Your task to perform on an android device: see tabs open on other devices in the chrome app Image 0: 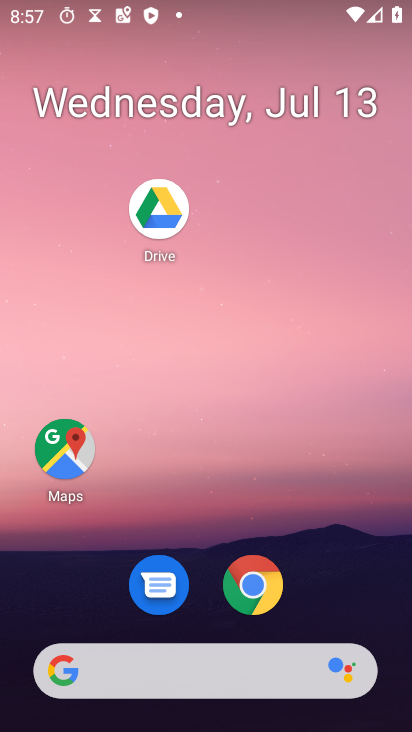
Step 0: press home button
Your task to perform on an android device: see tabs open on other devices in the chrome app Image 1: 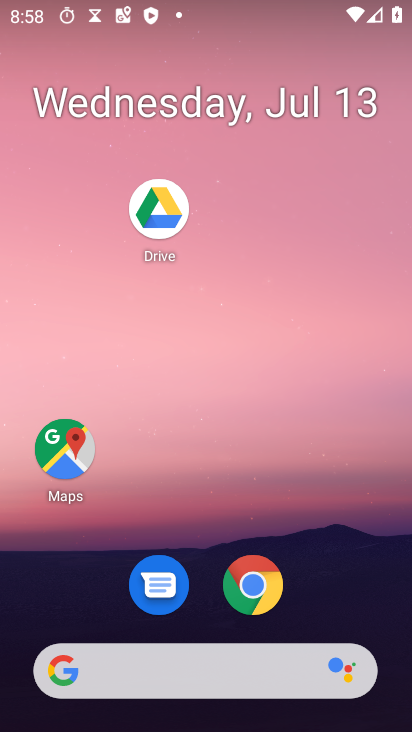
Step 1: click (261, 589)
Your task to perform on an android device: see tabs open on other devices in the chrome app Image 2: 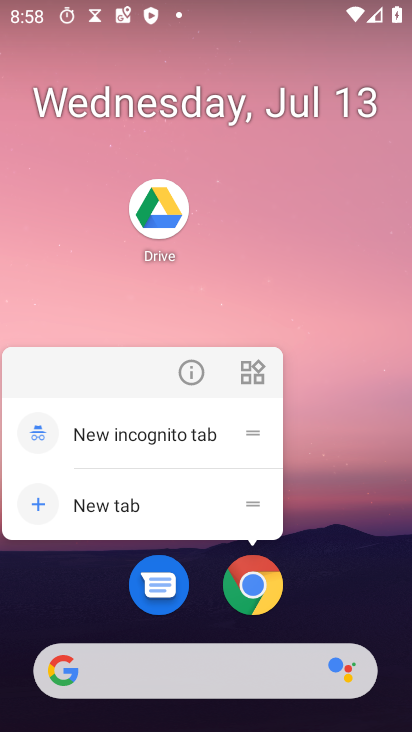
Step 2: click (261, 589)
Your task to perform on an android device: see tabs open on other devices in the chrome app Image 3: 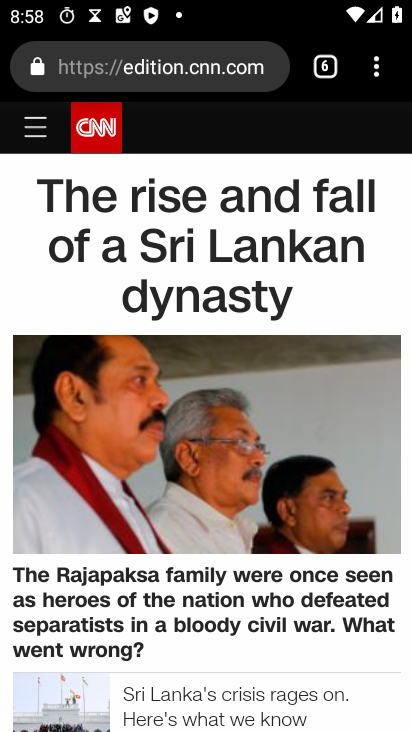
Step 3: task complete